Your task to perform on an android device: Clear the cart on bestbuy.com. Search for "logitech g pro" on bestbuy.com, select the first entry, and add it to the cart. Image 0: 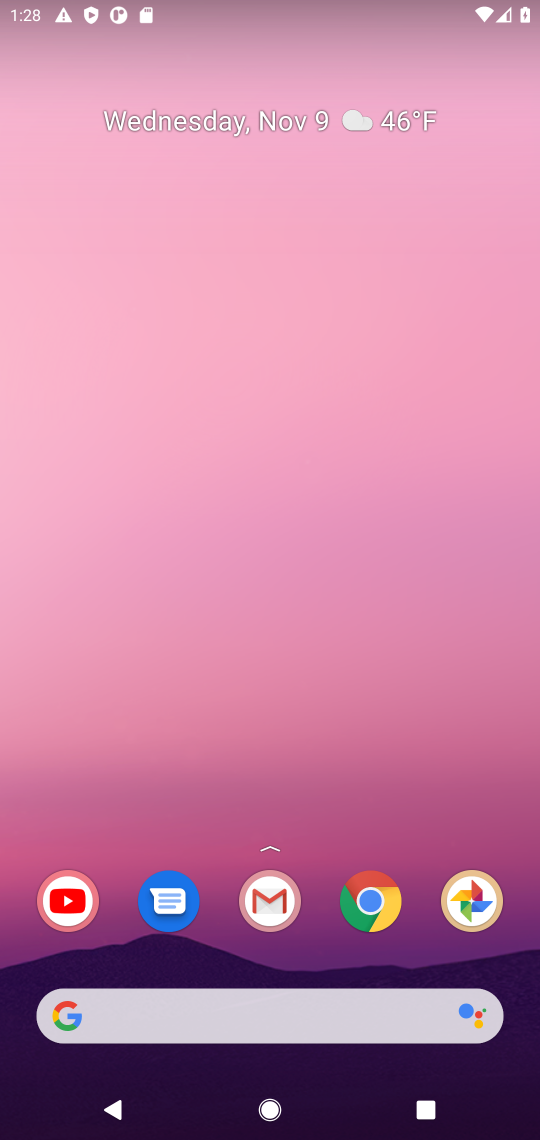
Step 0: click (375, 902)
Your task to perform on an android device: Clear the cart on bestbuy.com. Search for "logitech g pro" on bestbuy.com, select the first entry, and add it to the cart. Image 1: 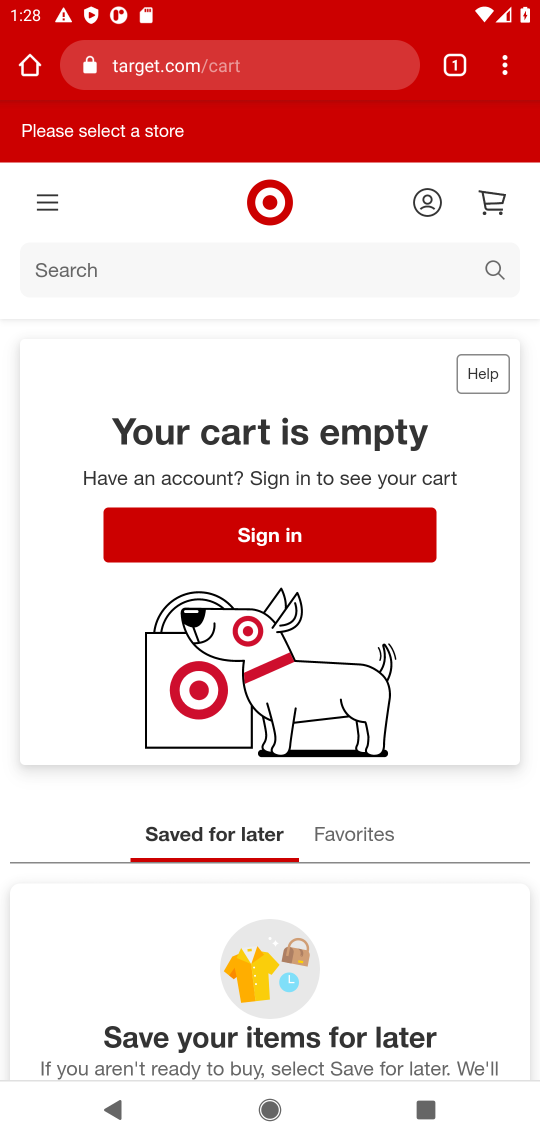
Step 1: click (307, 62)
Your task to perform on an android device: Clear the cart on bestbuy.com. Search for "logitech g pro" on bestbuy.com, select the first entry, and add it to the cart. Image 2: 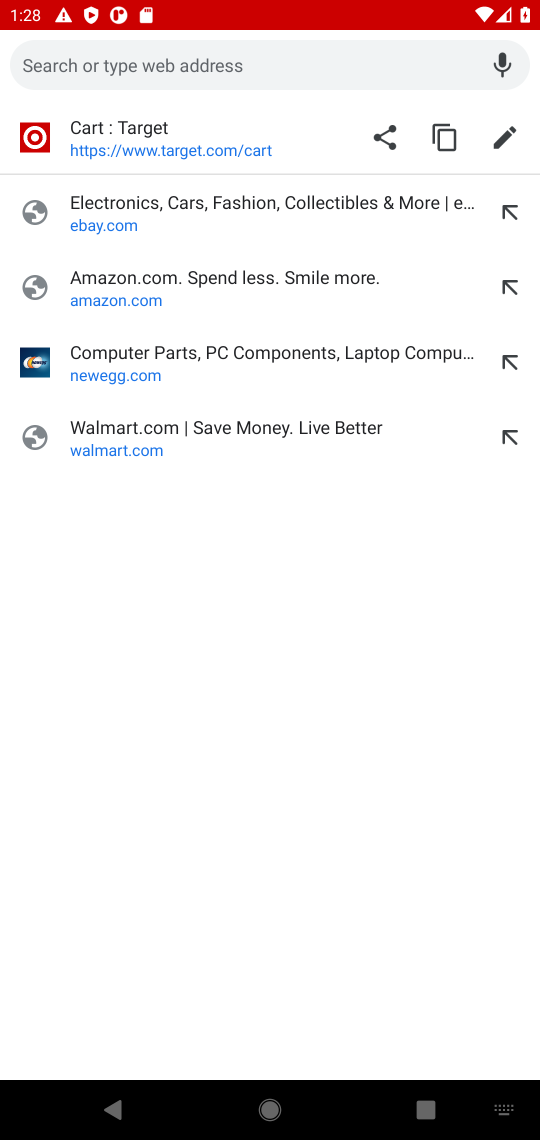
Step 2: type "bestbuy.com"
Your task to perform on an android device: Clear the cart on bestbuy.com. Search for "logitech g pro" on bestbuy.com, select the first entry, and add it to the cart. Image 3: 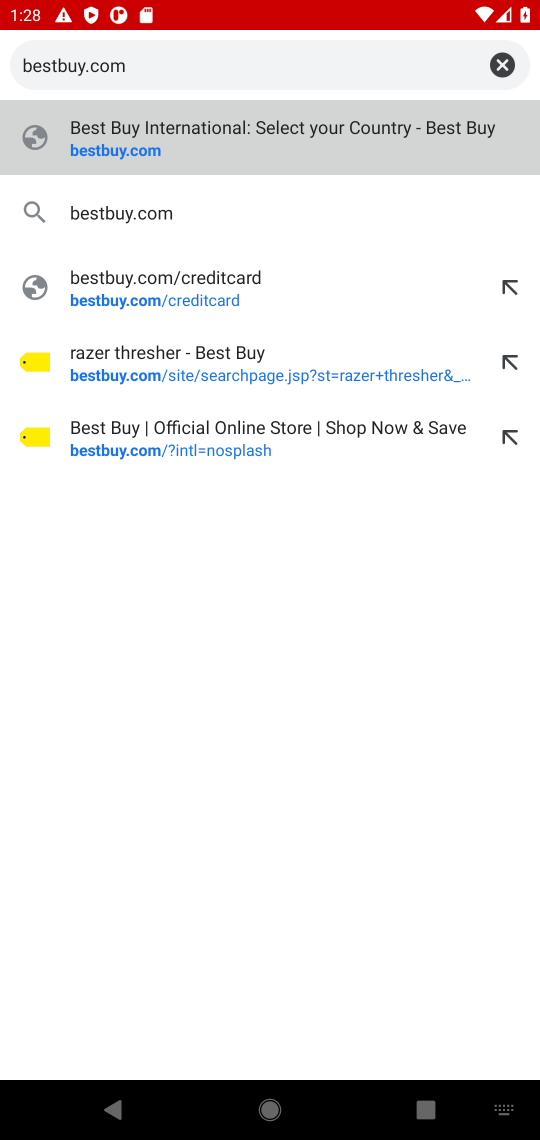
Step 3: press enter
Your task to perform on an android device: Clear the cart on bestbuy.com. Search for "logitech g pro" on bestbuy.com, select the first entry, and add it to the cart. Image 4: 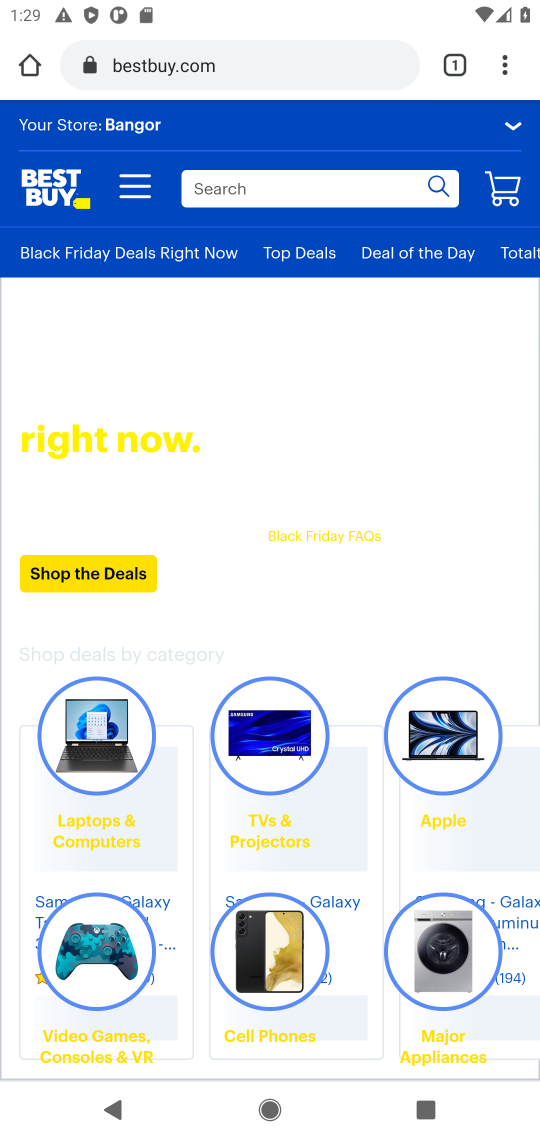
Step 4: click (352, 186)
Your task to perform on an android device: Clear the cart on bestbuy.com. Search for "logitech g pro" on bestbuy.com, select the first entry, and add it to the cart. Image 5: 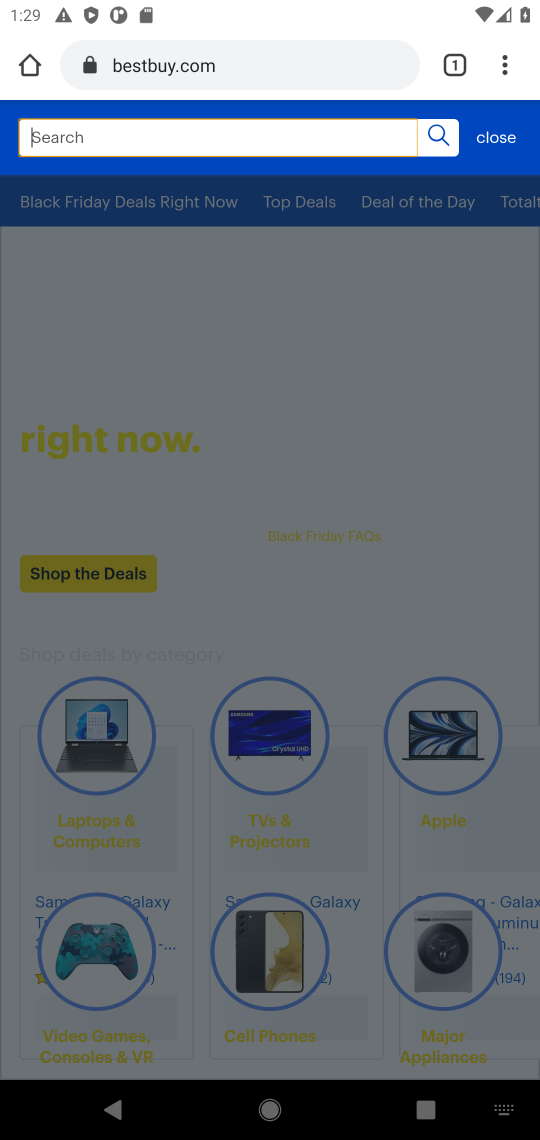
Step 5: press enter
Your task to perform on an android device: Clear the cart on bestbuy.com. Search for "logitech g pro" on bestbuy.com, select the first entry, and add it to the cart. Image 6: 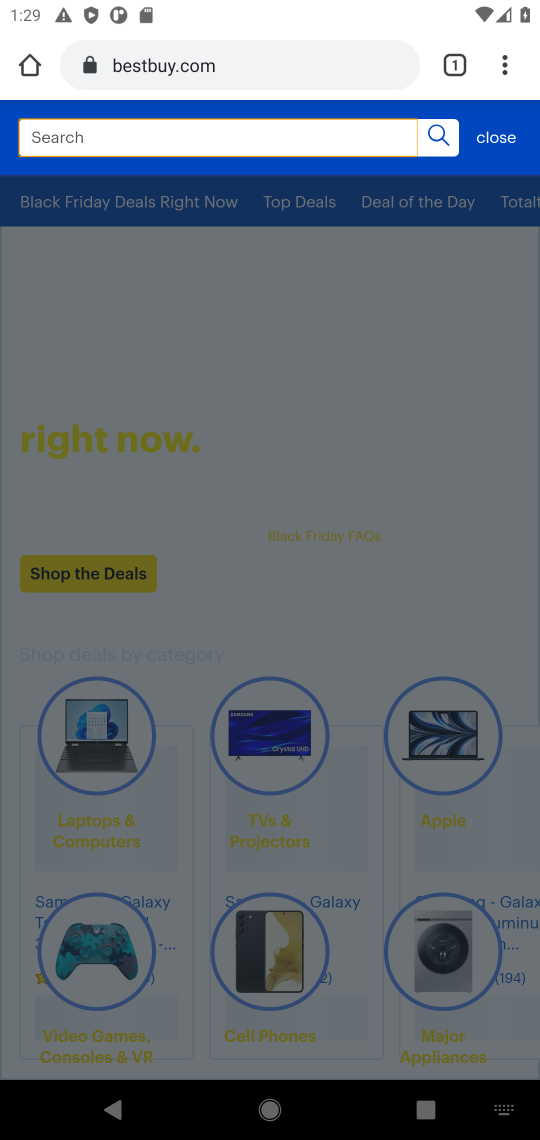
Step 6: type "logitech g pro"
Your task to perform on an android device: Clear the cart on bestbuy.com. Search for "logitech g pro" on bestbuy.com, select the first entry, and add it to the cart. Image 7: 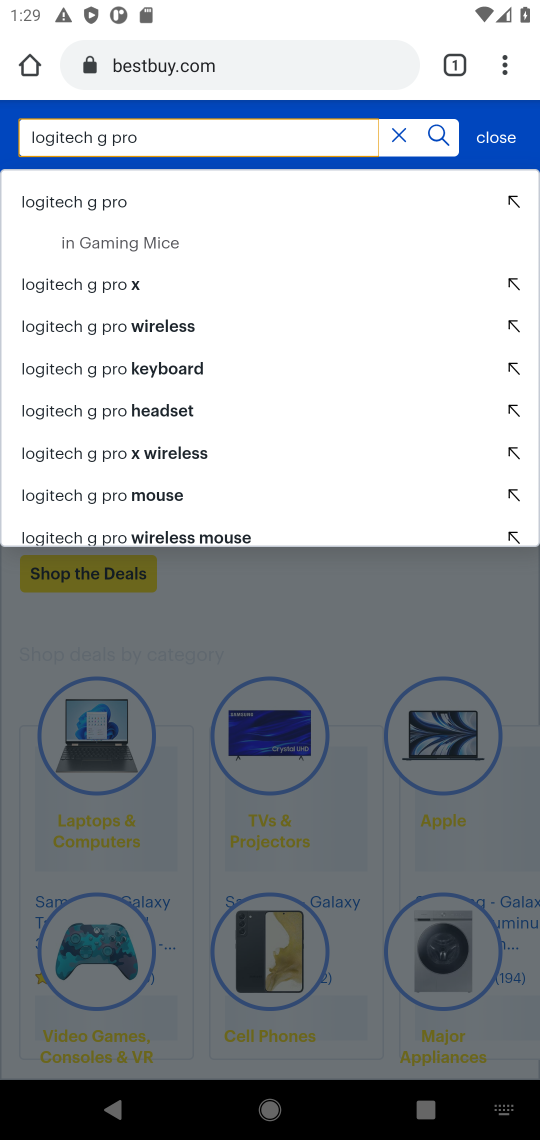
Step 7: click (102, 197)
Your task to perform on an android device: Clear the cart on bestbuy.com. Search for "logitech g pro" on bestbuy.com, select the first entry, and add it to the cart. Image 8: 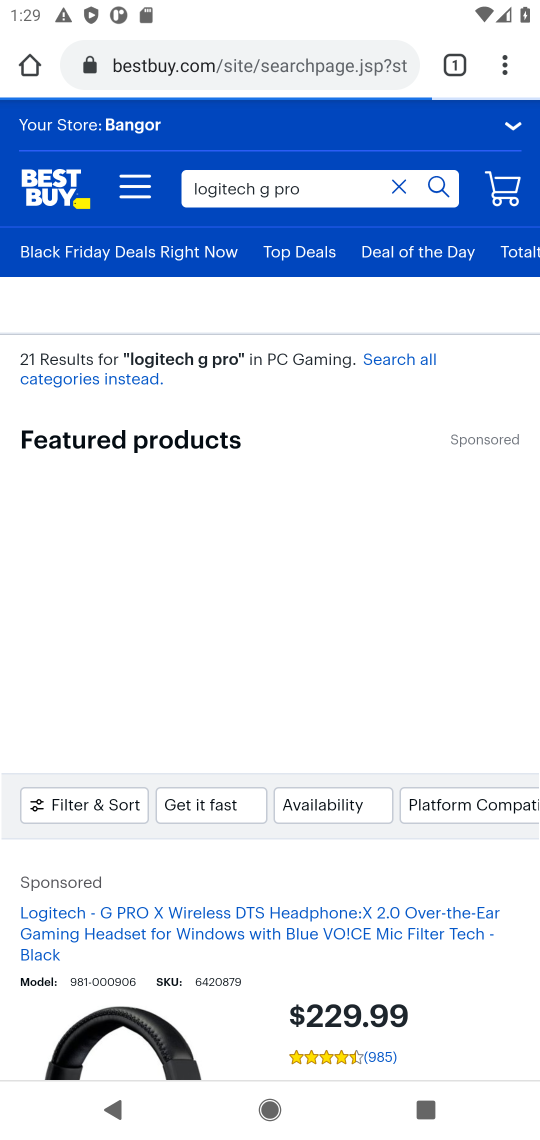
Step 8: drag from (401, 899) to (312, 422)
Your task to perform on an android device: Clear the cart on bestbuy.com. Search for "logitech g pro" on bestbuy.com, select the first entry, and add it to the cart. Image 9: 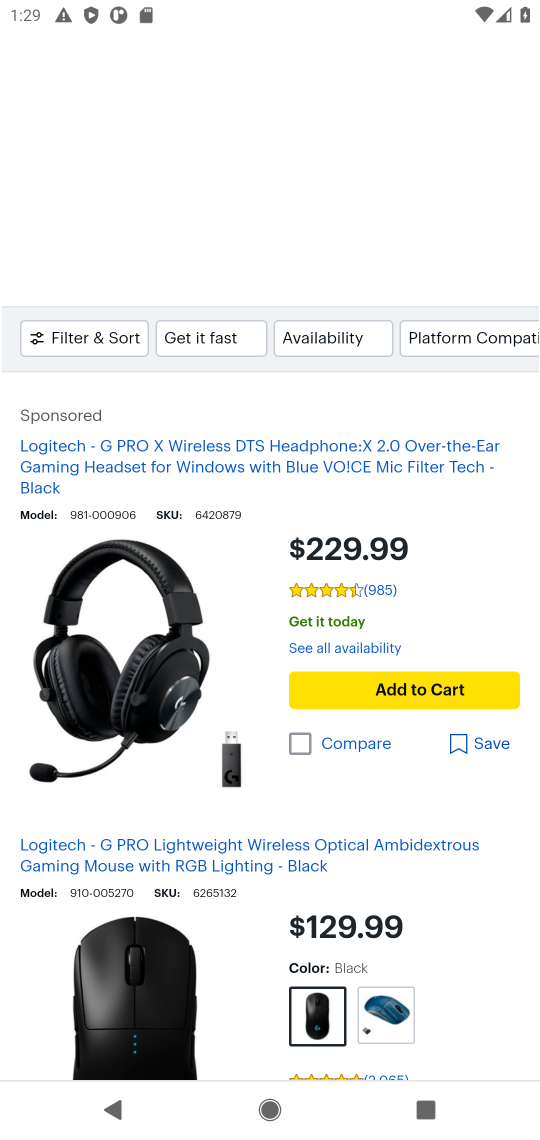
Step 9: click (95, 603)
Your task to perform on an android device: Clear the cart on bestbuy.com. Search for "logitech g pro" on bestbuy.com, select the first entry, and add it to the cart. Image 10: 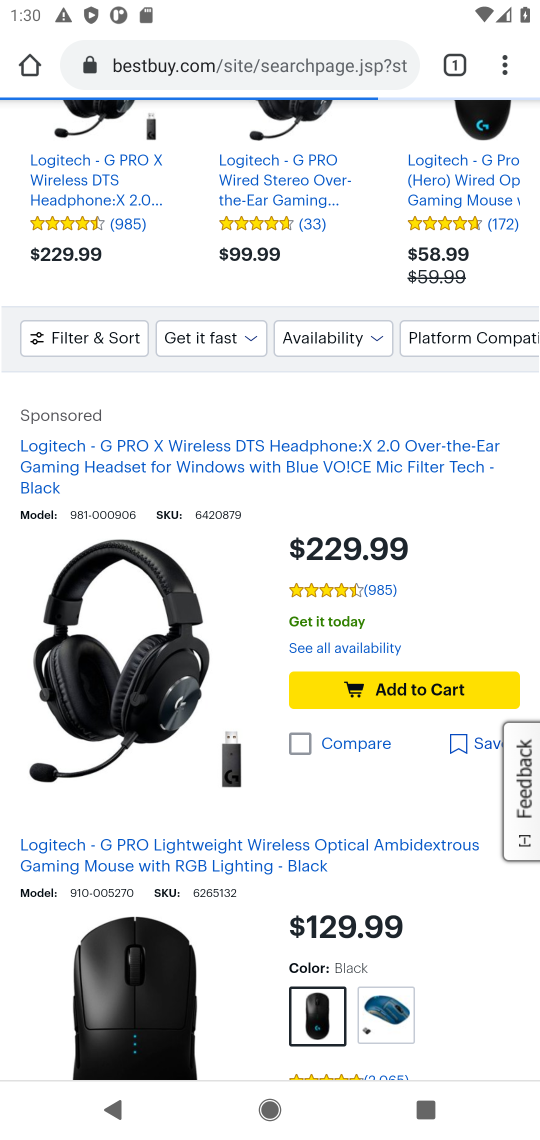
Step 10: click (167, 606)
Your task to perform on an android device: Clear the cart on bestbuy.com. Search for "logitech g pro" on bestbuy.com, select the first entry, and add it to the cart. Image 11: 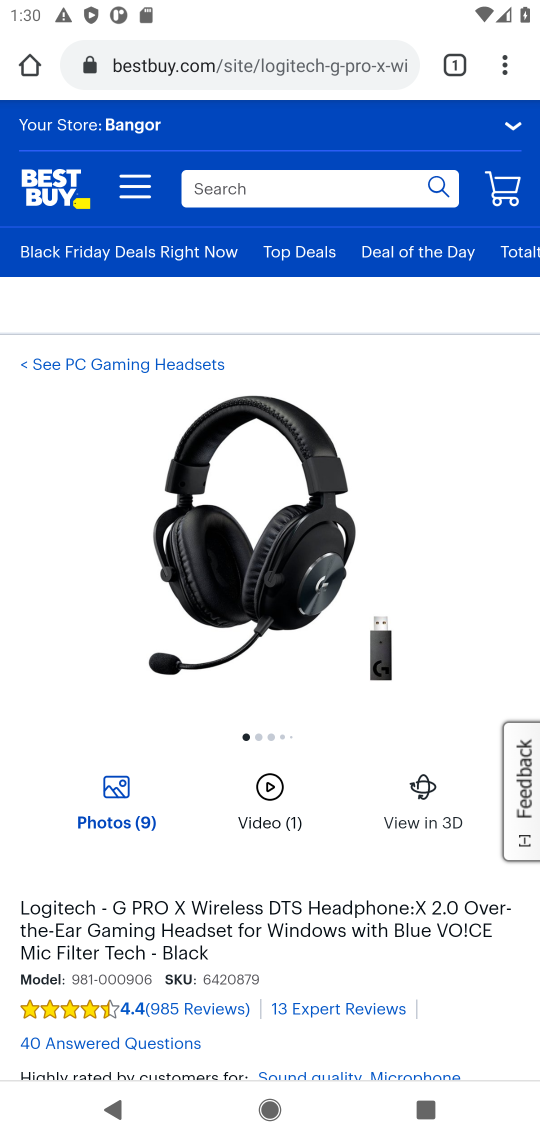
Step 11: drag from (470, 583) to (535, 157)
Your task to perform on an android device: Clear the cart on bestbuy.com. Search for "logitech g pro" on bestbuy.com, select the first entry, and add it to the cart. Image 12: 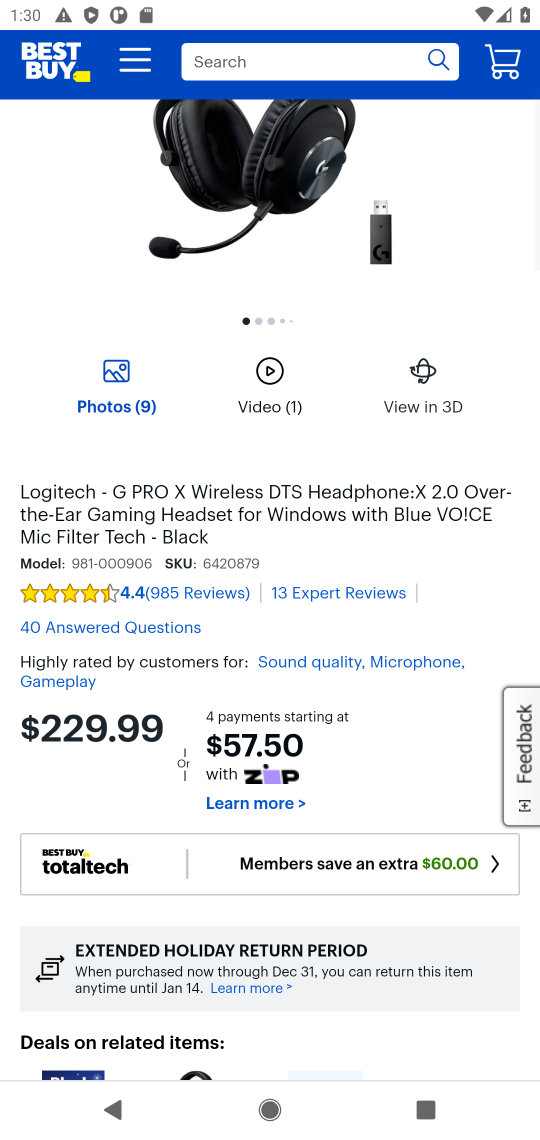
Step 12: drag from (491, 763) to (451, 172)
Your task to perform on an android device: Clear the cart on bestbuy.com. Search for "logitech g pro" on bestbuy.com, select the first entry, and add it to the cart. Image 13: 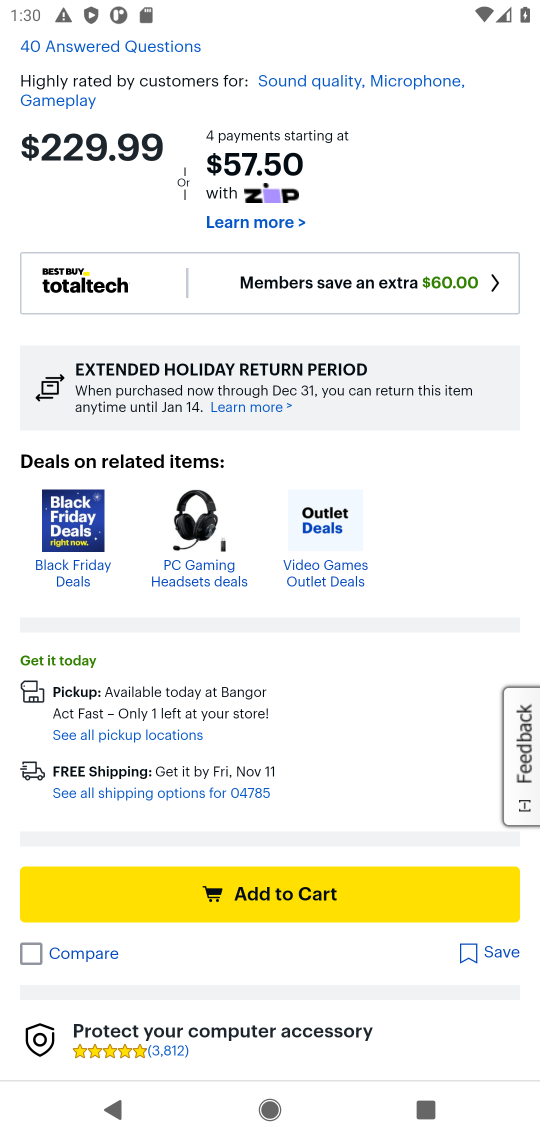
Step 13: click (320, 887)
Your task to perform on an android device: Clear the cart on bestbuy.com. Search for "logitech g pro" on bestbuy.com, select the first entry, and add it to the cart. Image 14: 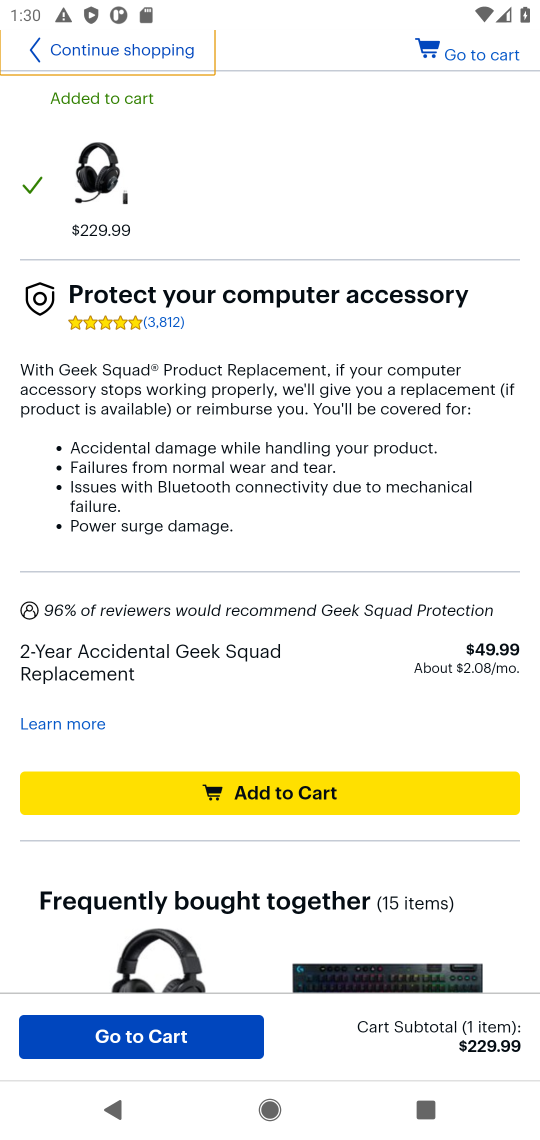
Step 14: task complete